Your task to perform on an android device: Go to wifi settings Image 0: 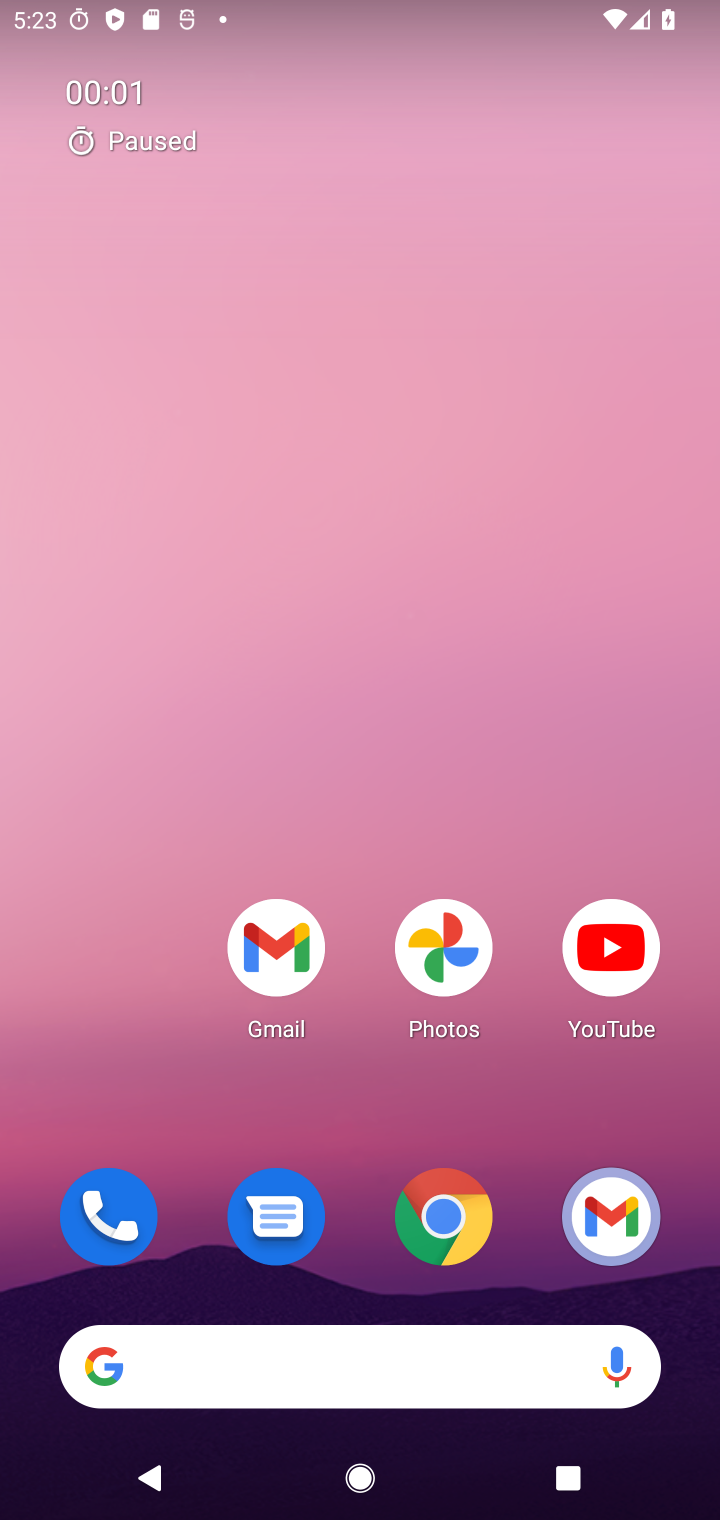
Step 0: drag from (362, 1106) to (409, 91)
Your task to perform on an android device: Go to wifi settings Image 1: 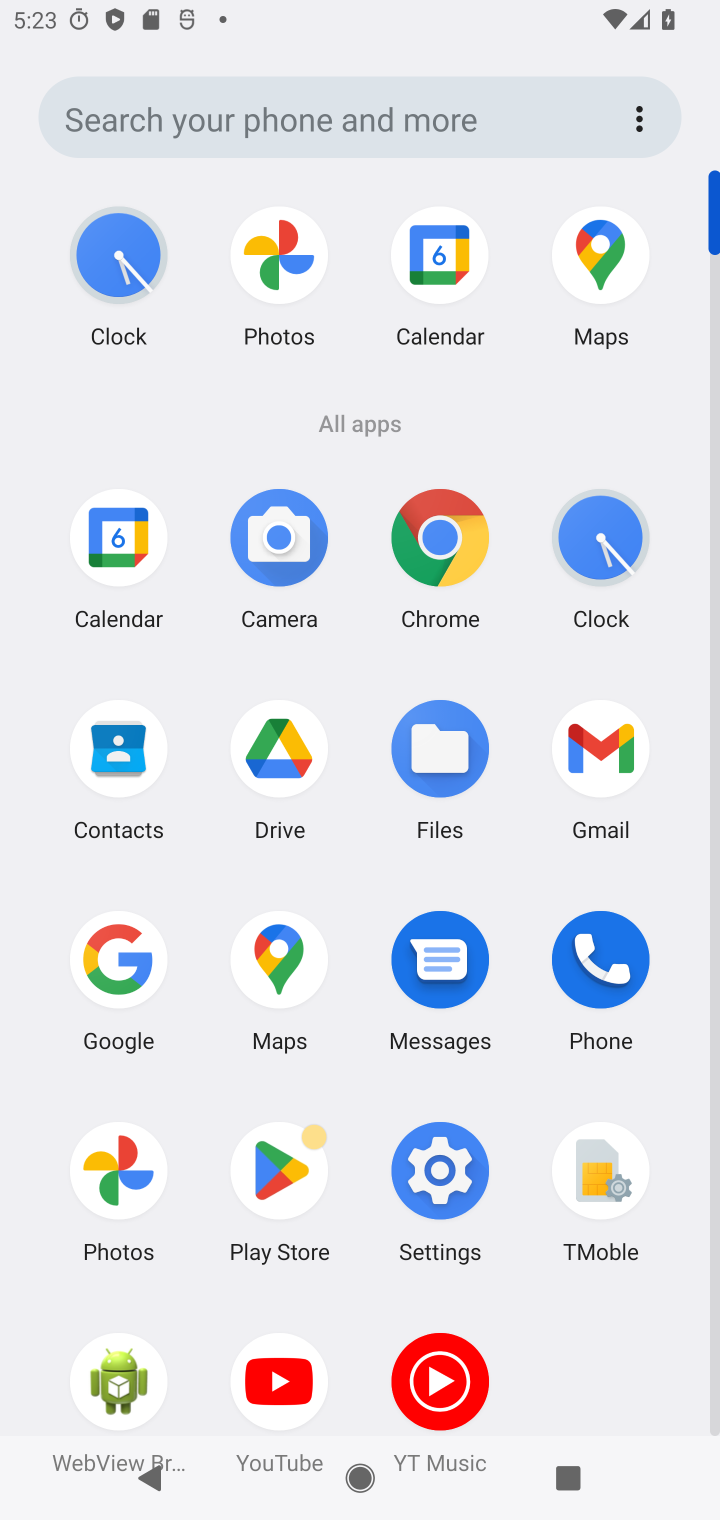
Step 1: click (432, 1165)
Your task to perform on an android device: Go to wifi settings Image 2: 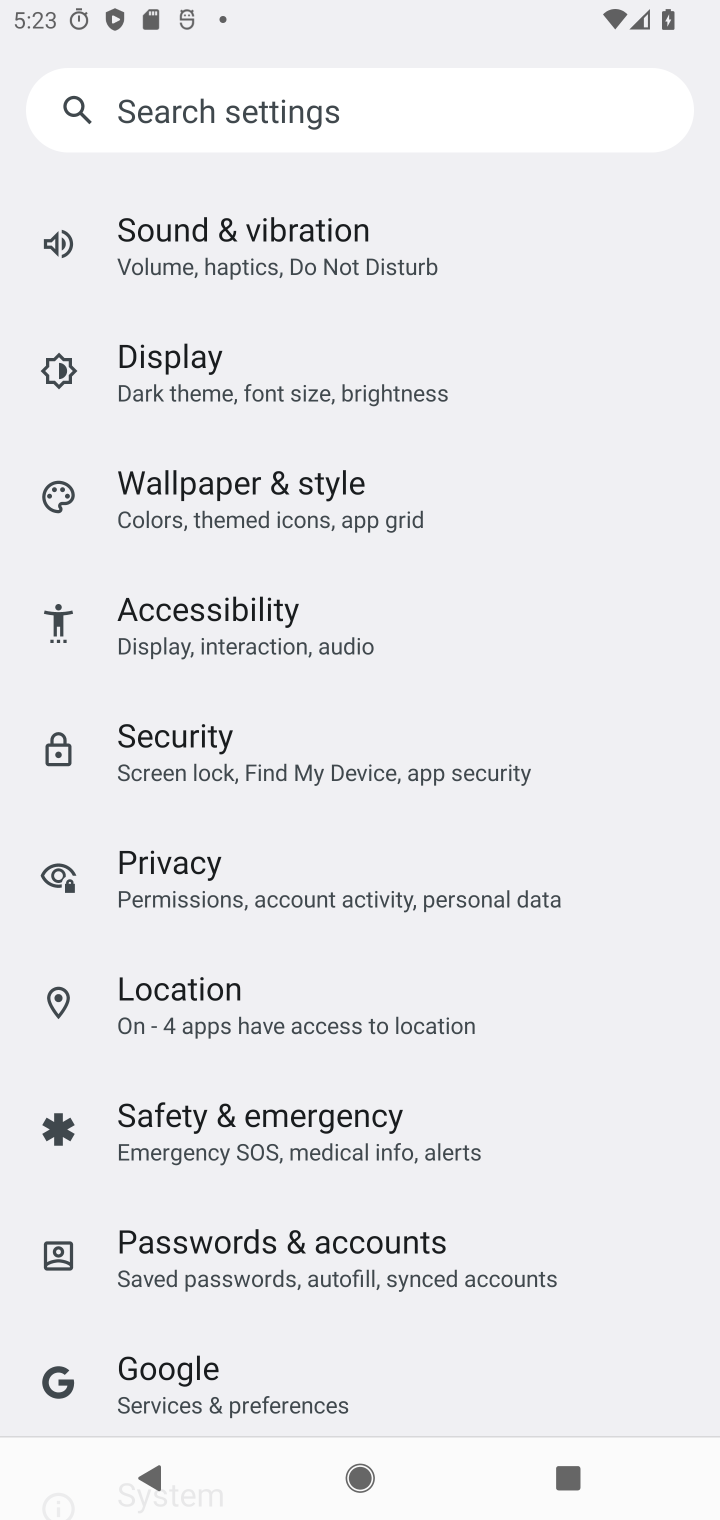
Step 2: drag from (507, 341) to (420, 860)
Your task to perform on an android device: Go to wifi settings Image 3: 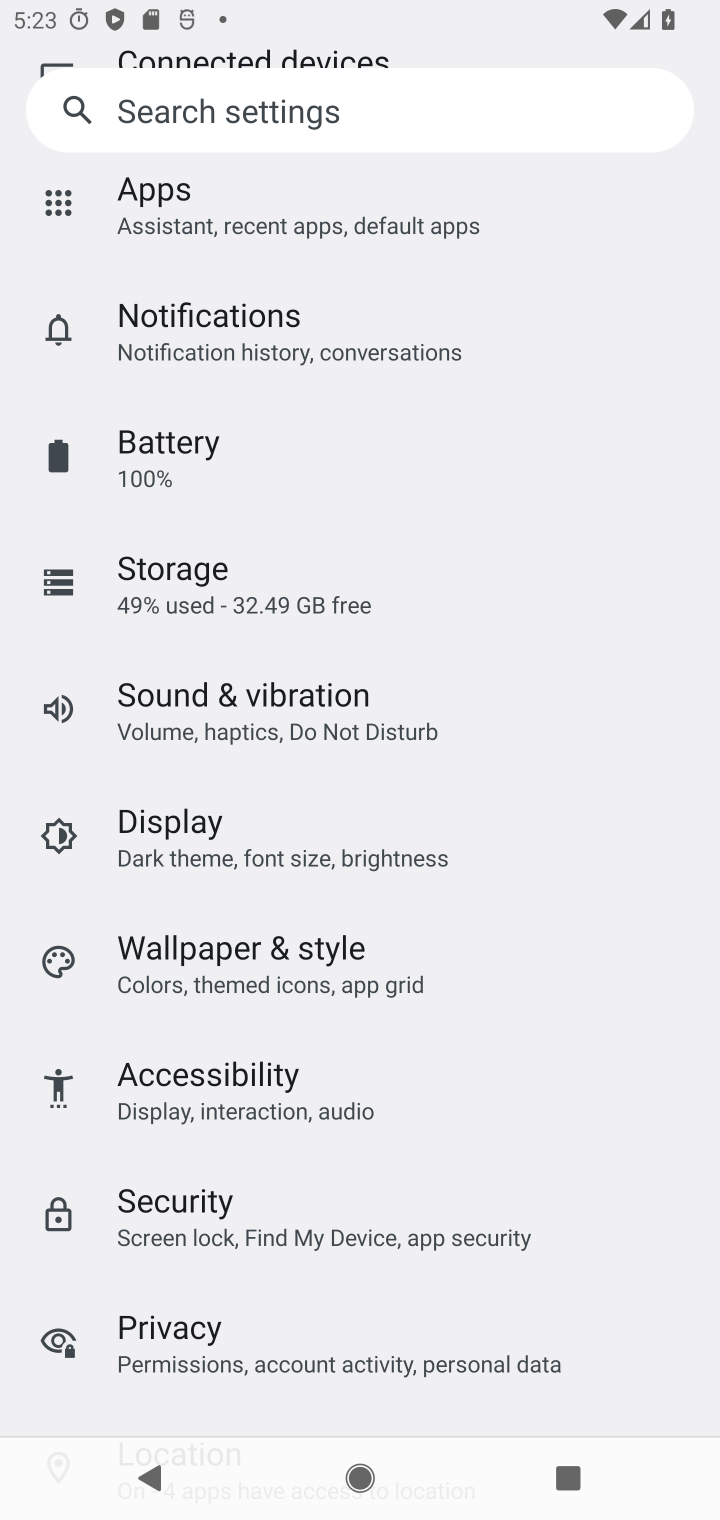
Step 3: drag from (512, 290) to (355, 774)
Your task to perform on an android device: Go to wifi settings Image 4: 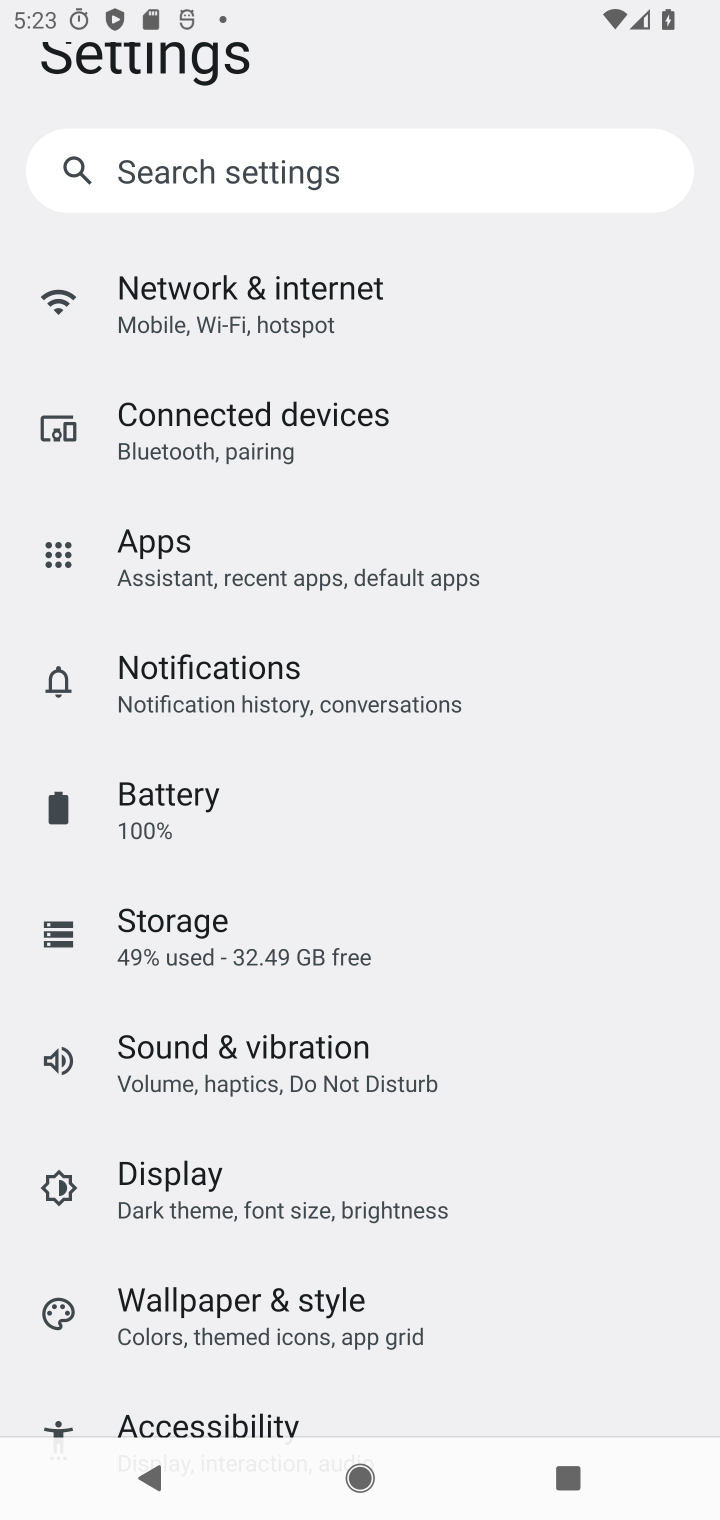
Step 4: click (341, 324)
Your task to perform on an android device: Go to wifi settings Image 5: 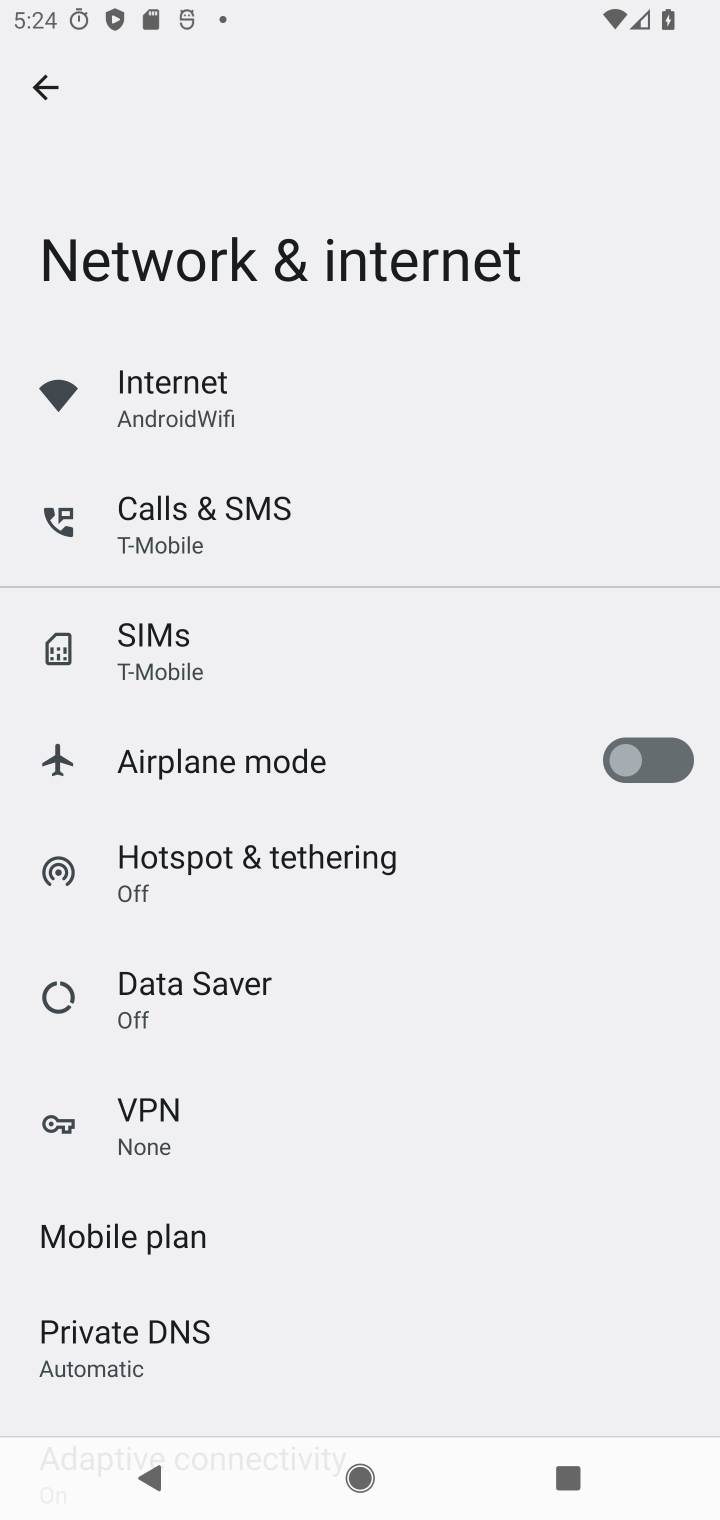
Step 5: click (204, 394)
Your task to perform on an android device: Go to wifi settings Image 6: 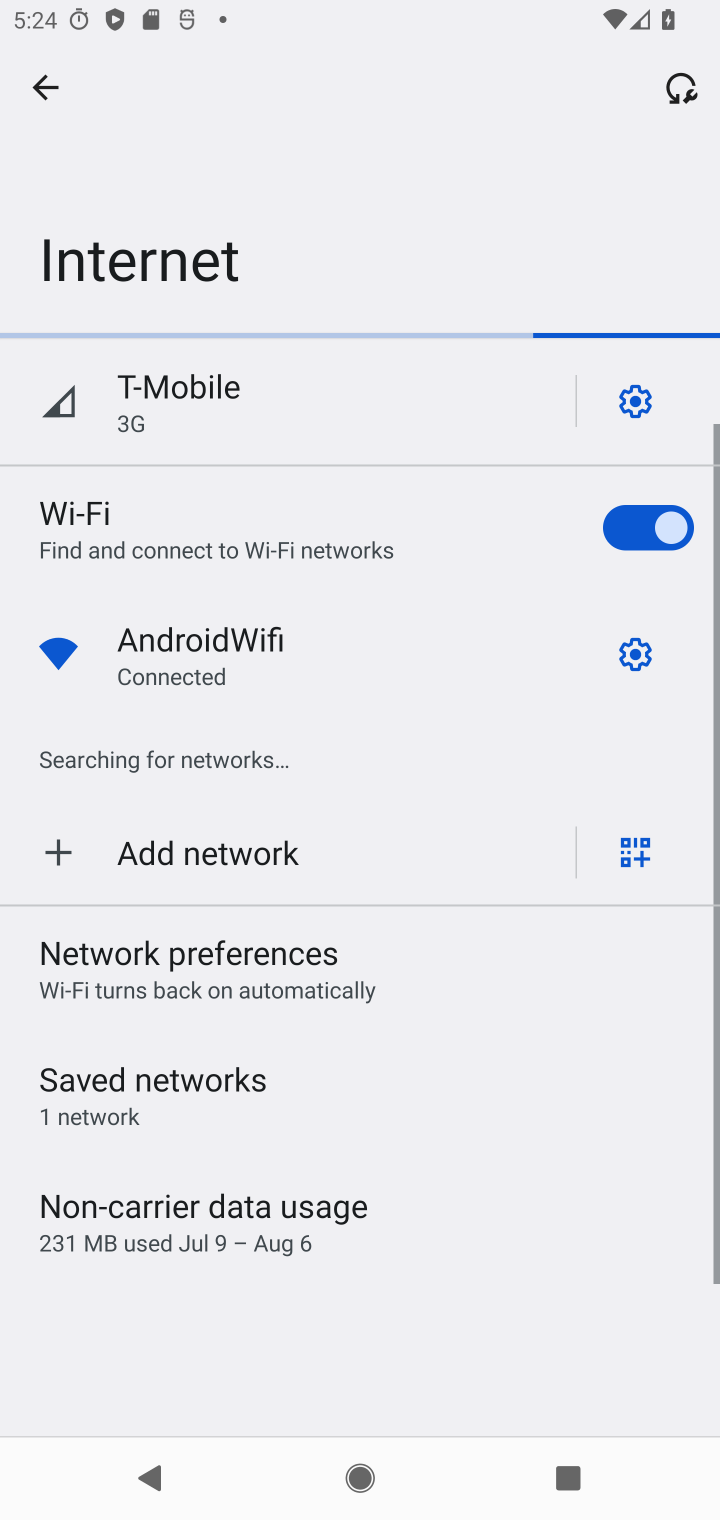
Step 6: click (638, 648)
Your task to perform on an android device: Go to wifi settings Image 7: 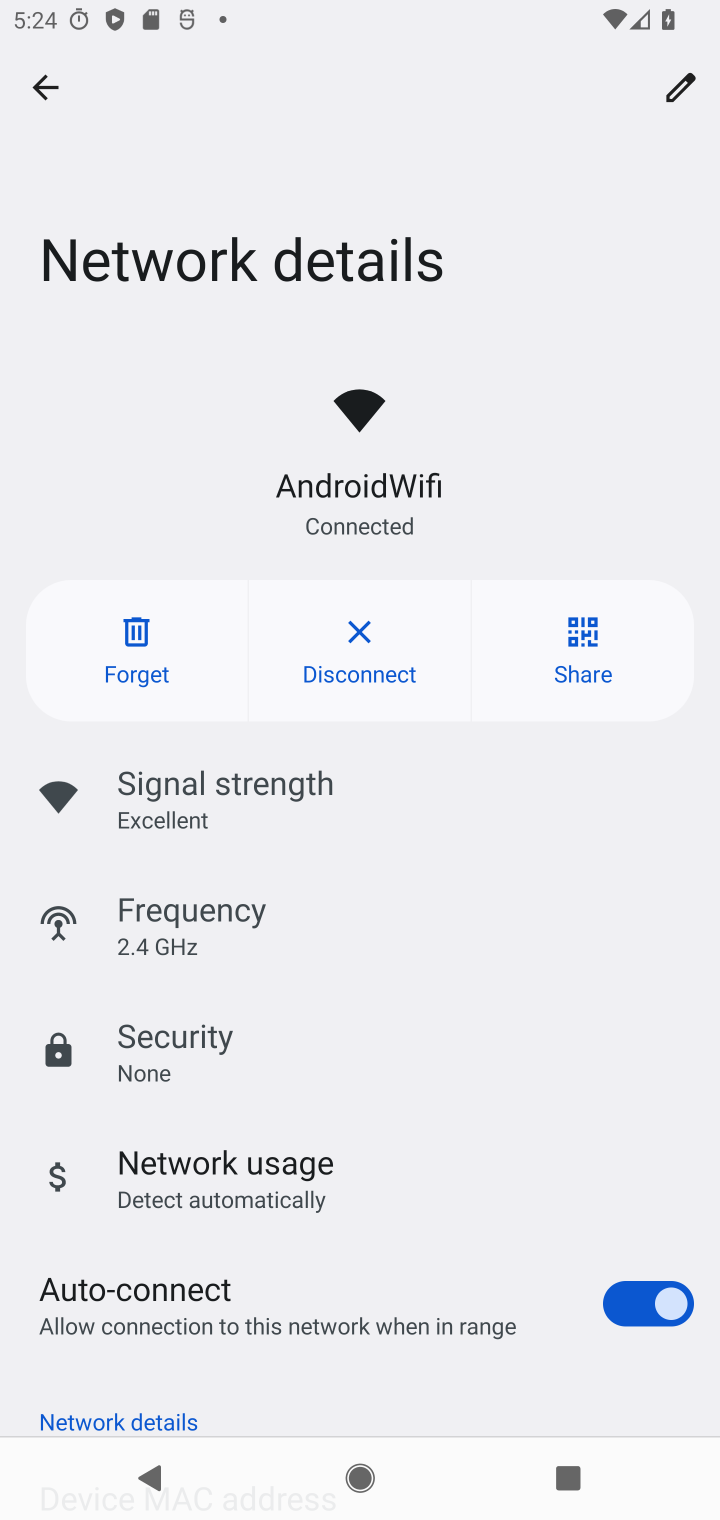
Step 7: task complete